Your task to perform on an android device: Do I have any events tomorrow? Image 0: 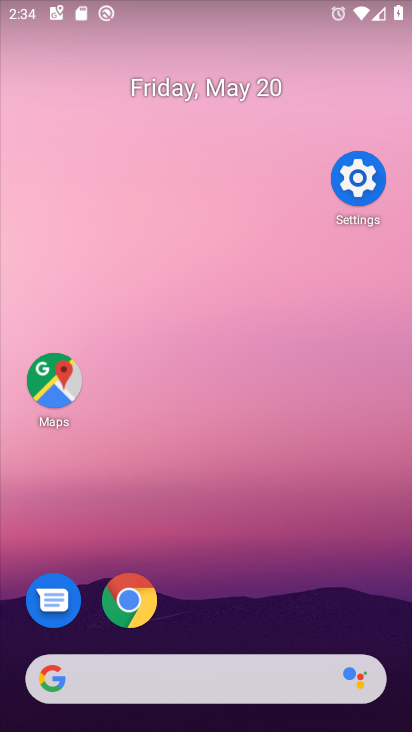
Step 0: drag from (260, 615) to (279, 12)
Your task to perform on an android device: Do I have any events tomorrow? Image 1: 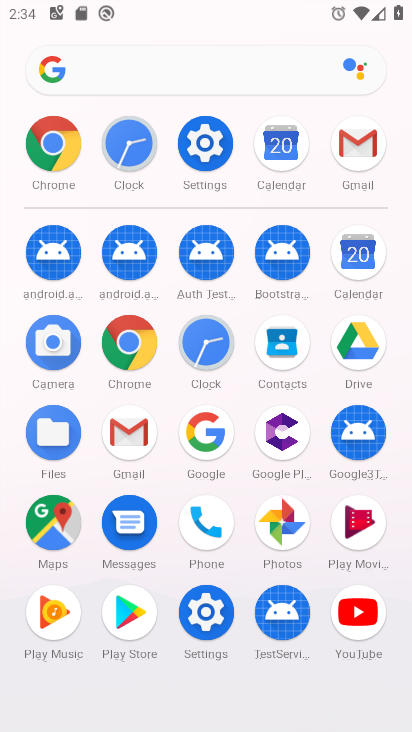
Step 1: click (361, 252)
Your task to perform on an android device: Do I have any events tomorrow? Image 2: 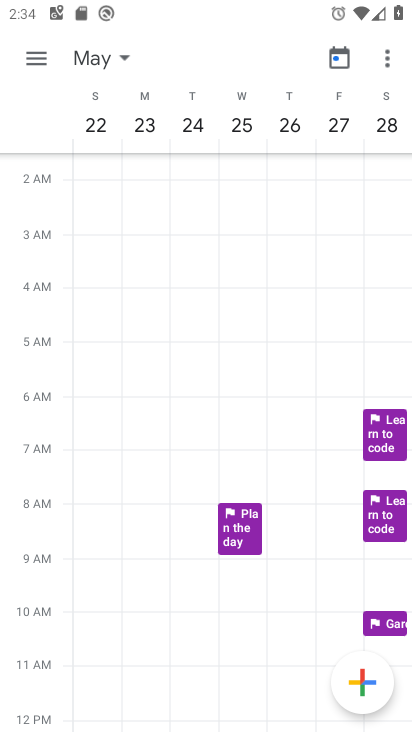
Step 2: drag from (102, 118) to (334, 101)
Your task to perform on an android device: Do I have any events tomorrow? Image 3: 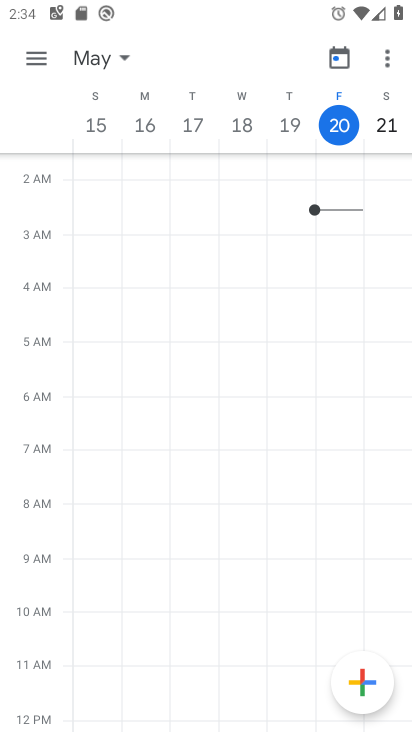
Step 3: click (38, 51)
Your task to perform on an android device: Do I have any events tomorrow? Image 4: 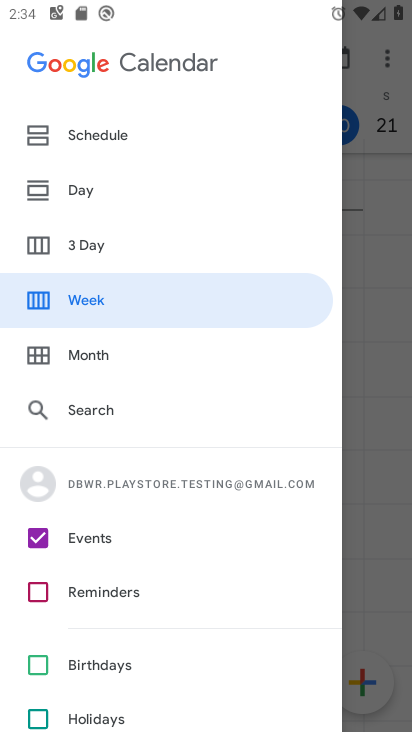
Step 4: click (90, 239)
Your task to perform on an android device: Do I have any events tomorrow? Image 5: 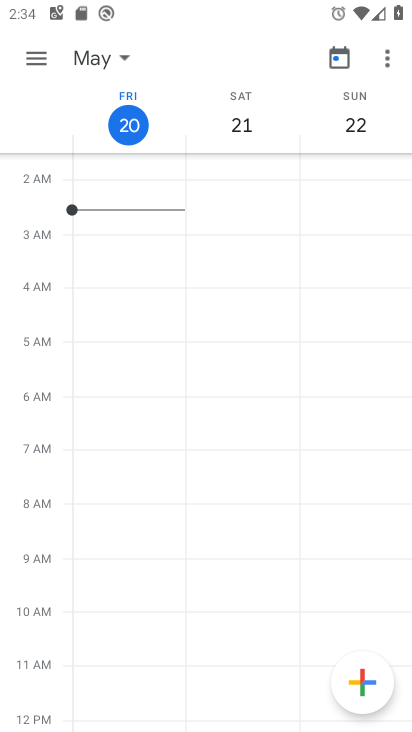
Step 5: task complete